Your task to perform on an android device: Open Yahoo.com Image 0: 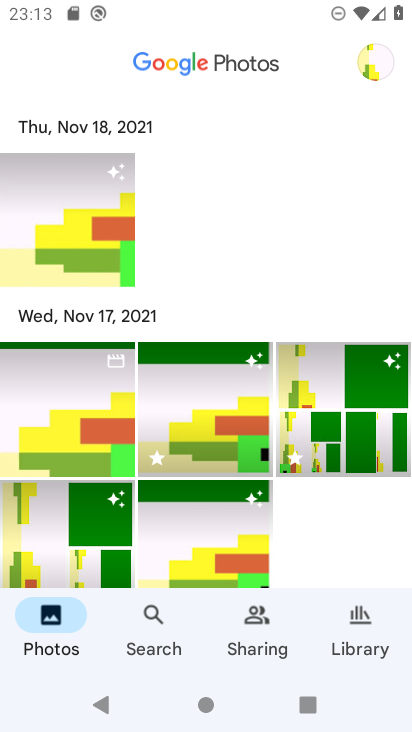
Step 0: press home button
Your task to perform on an android device: Open Yahoo.com Image 1: 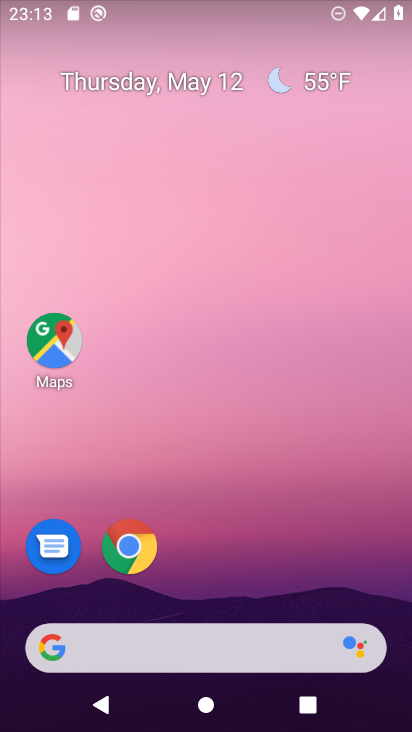
Step 1: click (125, 540)
Your task to perform on an android device: Open Yahoo.com Image 2: 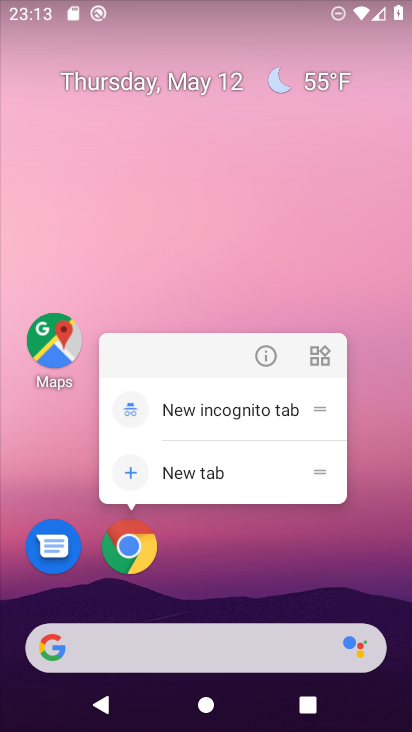
Step 2: click (125, 548)
Your task to perform on an android device: Open Yahoo.com Image 3: 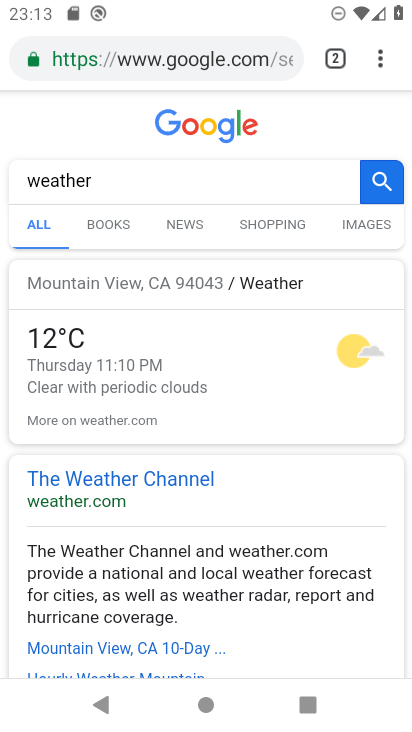
Step 3: click (101, 64)
Your task to perform on an android device: Open Yahoo.com Image 4: 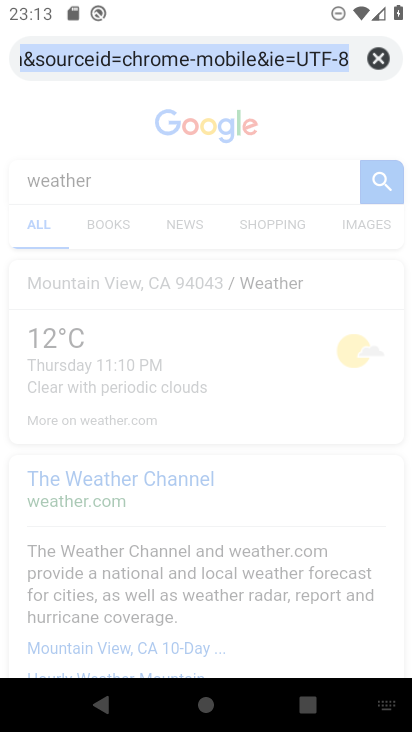
Step 4: click (114, 58)
Your task to perform on an android device: Open Yahoo.com Image 5: 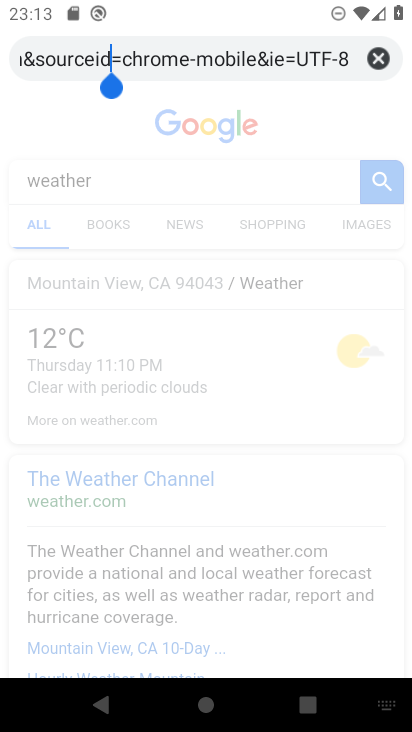
Step 5: click (382, 61)
Your task to perform on an android device: Open Yahoo.com Image 6: 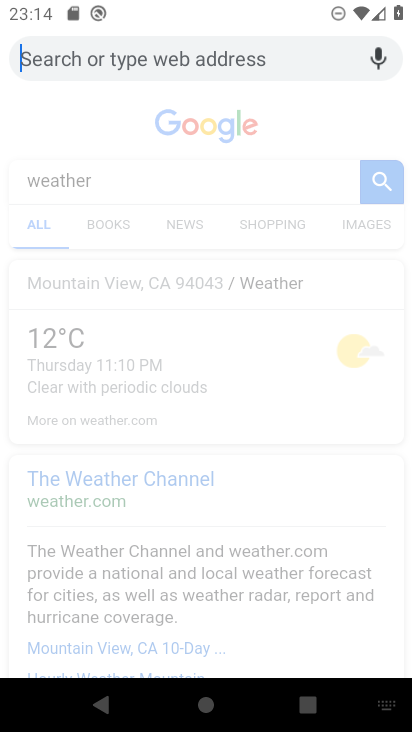
Step 6: type "yahoo.com"
Your task to perform on an android device: Open Yahoo.com Image 7: 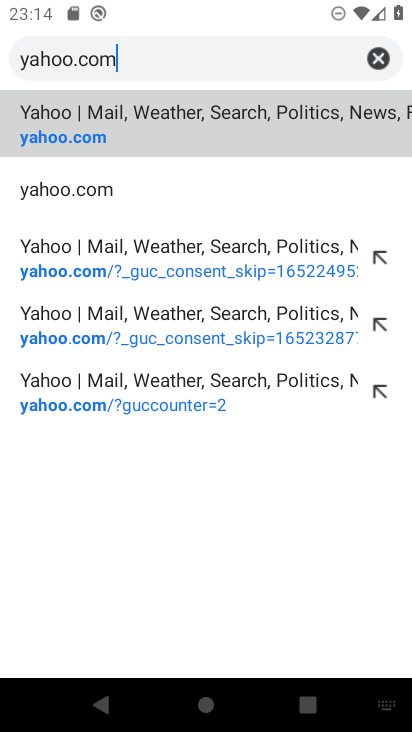
Step 7: click (116, 194)
Your task to perform on an android device: Open Yahoo.com Image 8: 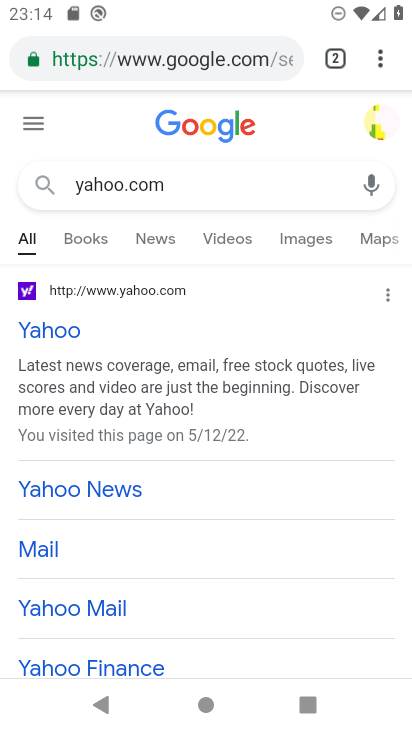
Step 8: task complete